Your task to perform on an android device: toggle show notifications on the lock screen Image 0: 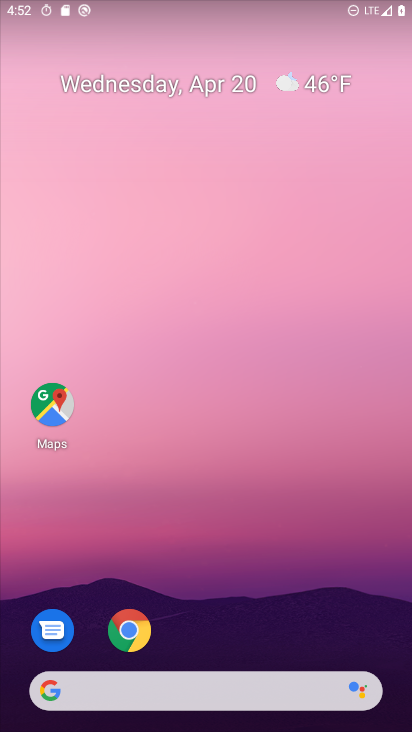
Step 0: drag from (220, 558) to (237, 0)
Your task to perform on an android device: toggle show notifications on the lock screen Image 1: 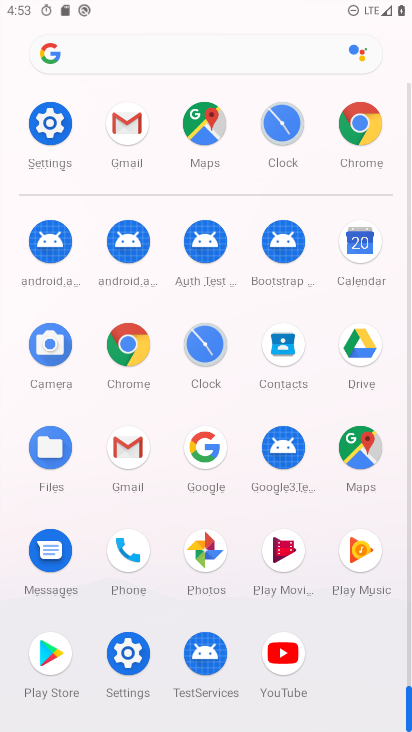
Step 1: click (136, 668)
Your task to perform on an android device: toggle show notifications on the lock screen Image 2: 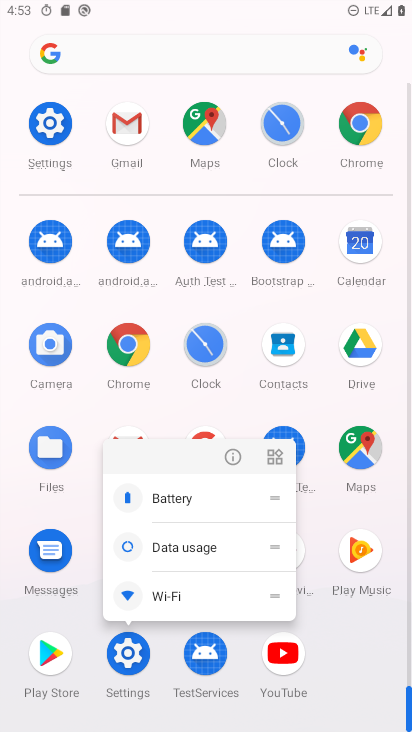
Step 2: click (136, 668)
Your task to perform on an android device: toggle show notifications on the lock screen Image 3: 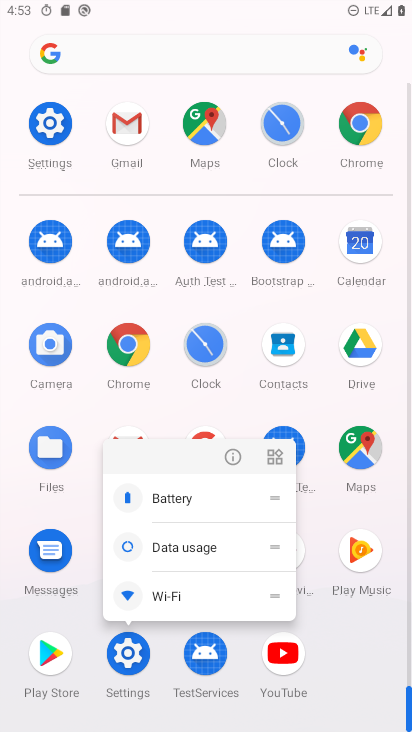
Step 3: click (136, 668)
Your task to perform on an android device: toggle show notifications on the lock screen Image 4: 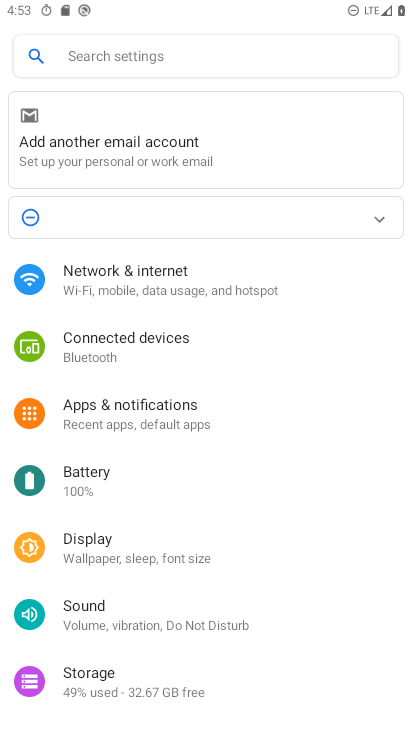
Step 4: click (110, 422)
Your task to perform on an android device: toggle show notifications on the lock screen Image 5: 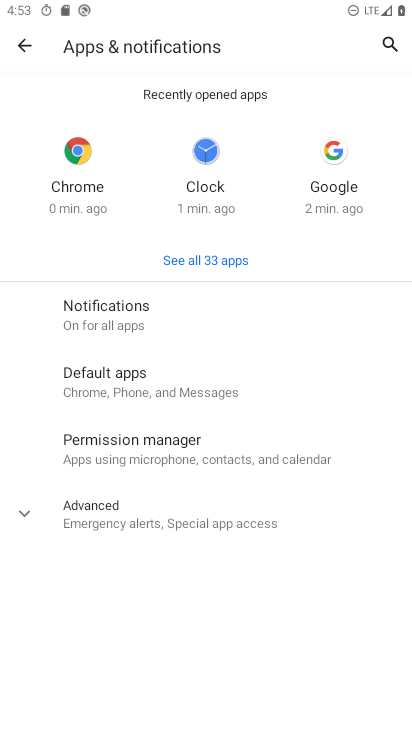
Step 5: click (173, 325)
Your task to perform on an android device: toggle show notifications on the lock screen Image 6: 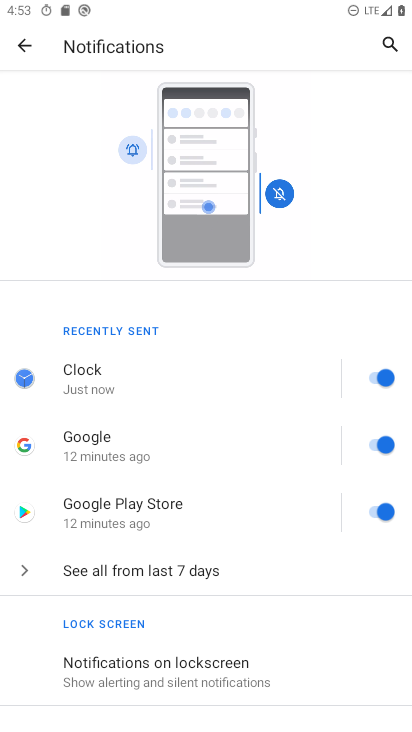
Step 6: drag from (271, 682) to (237, 289)
Your task to perform on an android device: toggle show notifications on the lock screen Image 7: 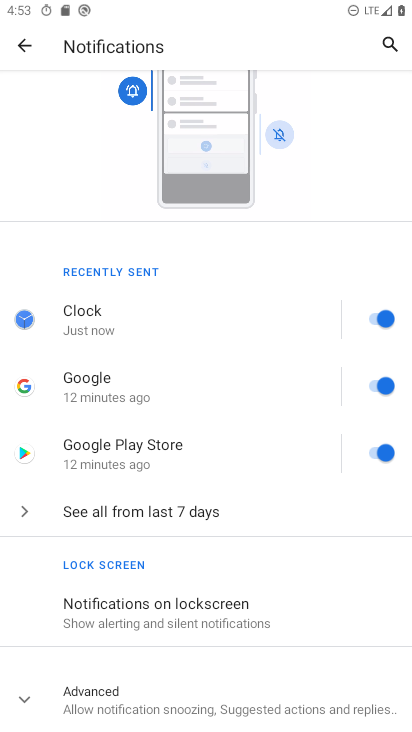
Step 7: click (208, 625)
Your task to perform on an android device: toggle show notifications on the lock screen Image 8: 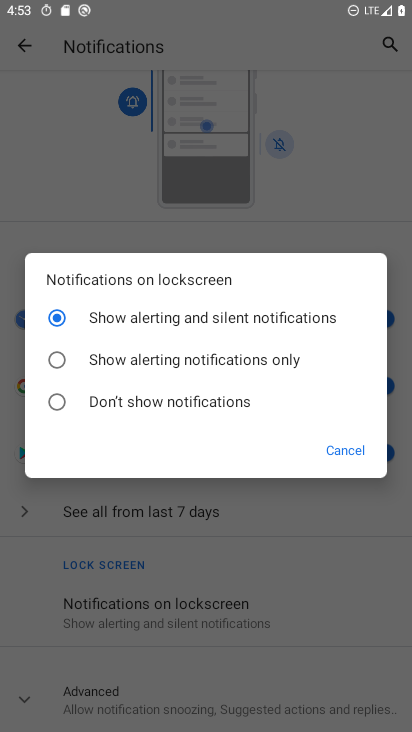
Step 8: click (99, 365)
Your task to perform on an android device: toggle show notifications on the lock screen Image 9: 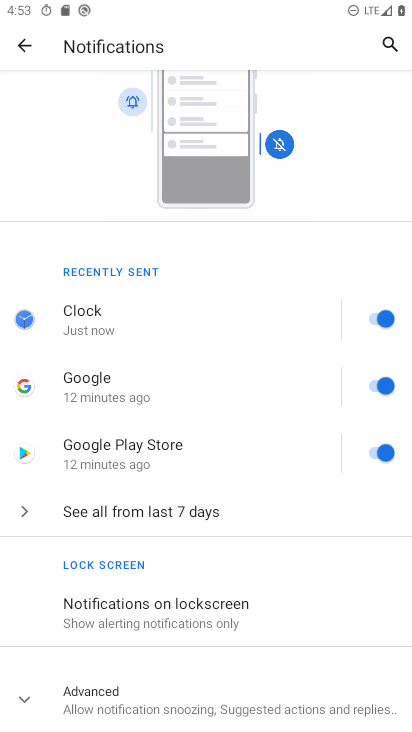
Step 9: task complete